Your task to perform on an android device: Open Yahoo.com Image 0: 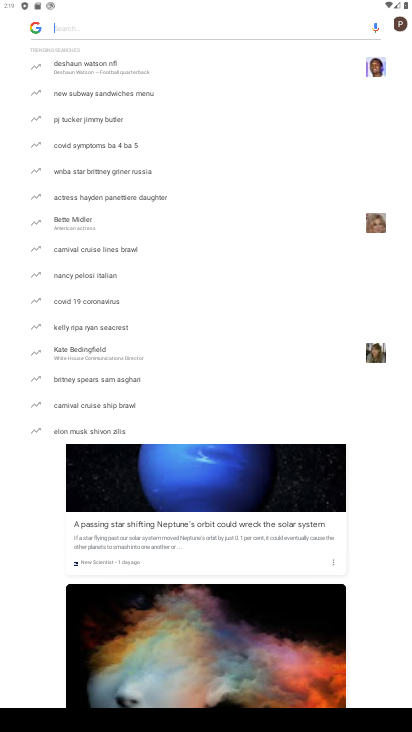
Step 0: press back button
Your task to perform on an android device: Open Yahoo.com Image 1: 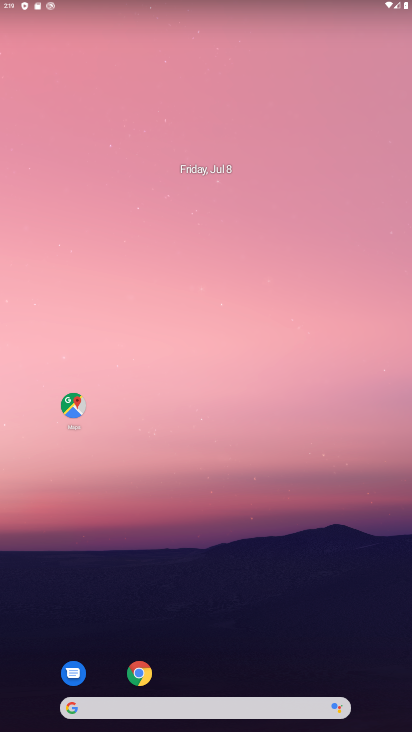
Step 1: click (139, 666)
Your task to perform on an android device: Open Yahoo.com Image 2: 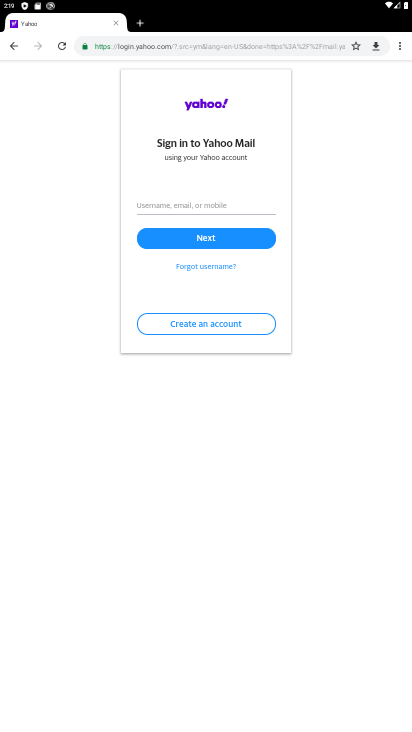
Step 2: task complete